Your task to perform on an android device: clear all cookies in the chrome app Image 0: 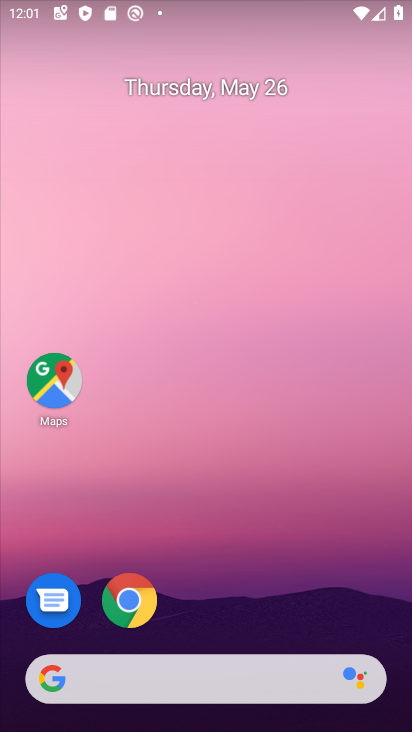
Step 0: drag from (252, 561) to (258, 108)
Your task to perform on an android device: clear all cookies in the chrome app Image 1: 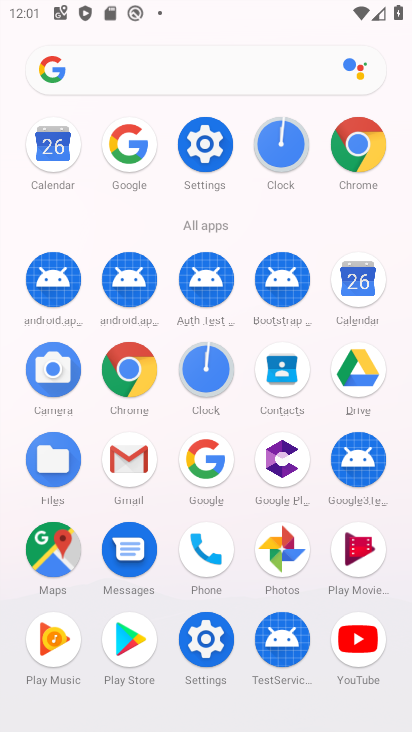
Step 1: click (128, 363)
Your task to perform on an android device: clear all cookies in the chrome app Image 2: 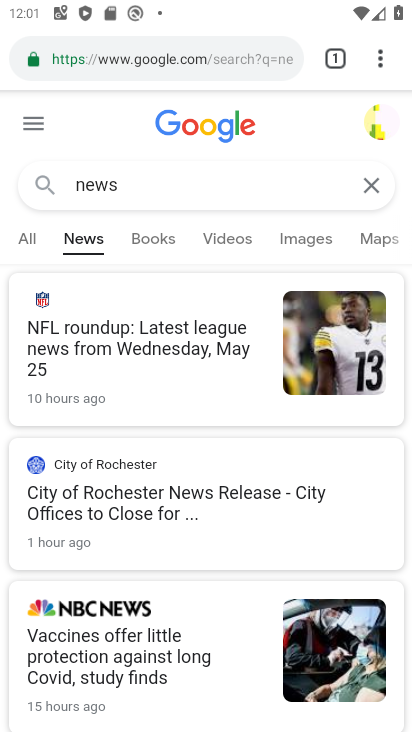
Step 2: click (383, 52)
Your task to perform on an android device: clear all cookies in the chrome app Image 3: 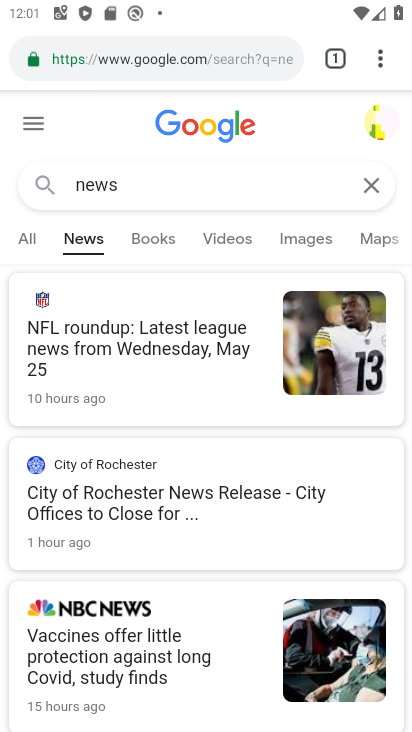
Step 3: drag from (382, 47) to (151, 322)
Your task to perform on an android device: clear all cookies in the chrome app Image 4: 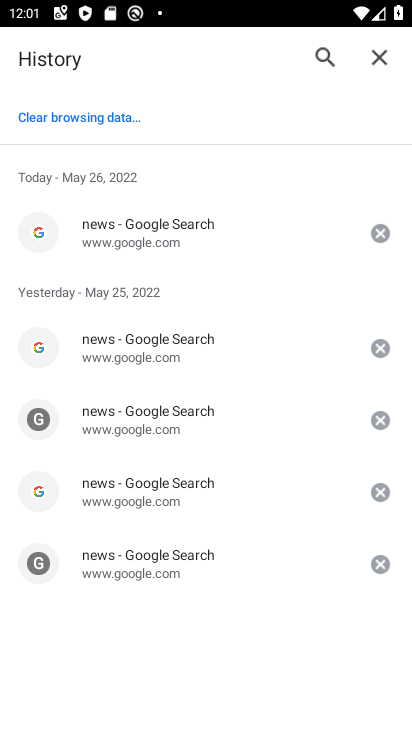
Step 4: click (116, 115)
Your task to perform on an android device: clear all cookies in the chrome app Image 5: 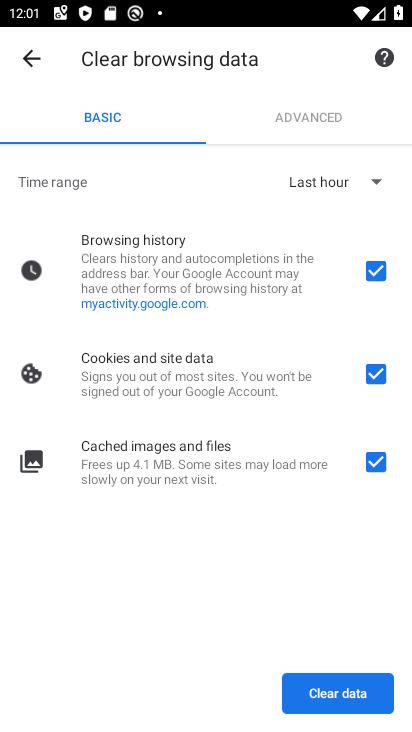
Step 5: click (328, 186)
Your task to perform on an android device: clear all cookies in the chrome app Image 6: 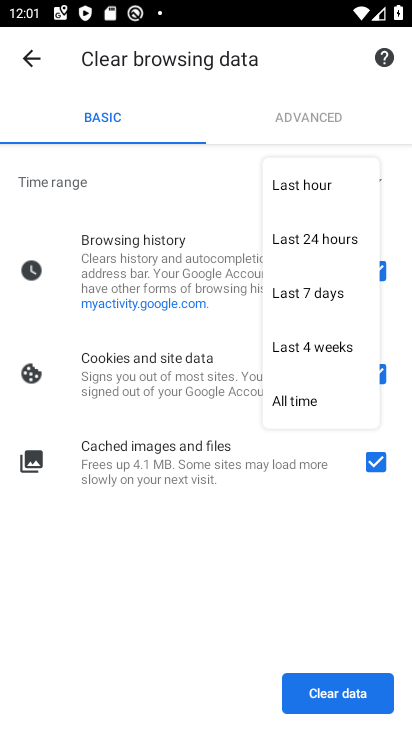
Step 6: click (305, 404)
Your task to perform on an android device: clear all cookies in the chrome app Image 7: 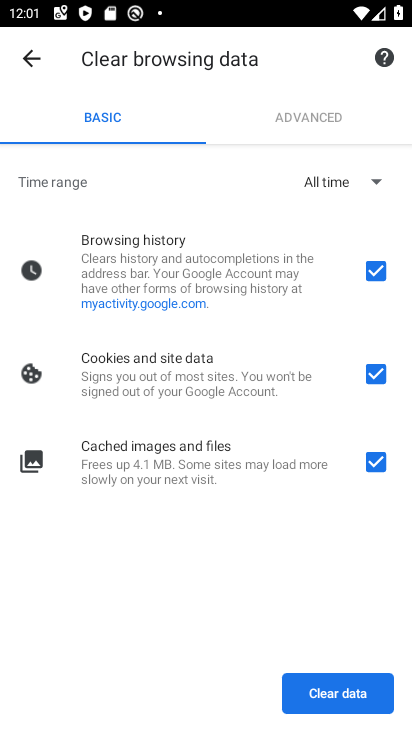
Step 7: click (332, 695)
Your task to perform on an android device: clear all cookies in the chrome app Image 8: 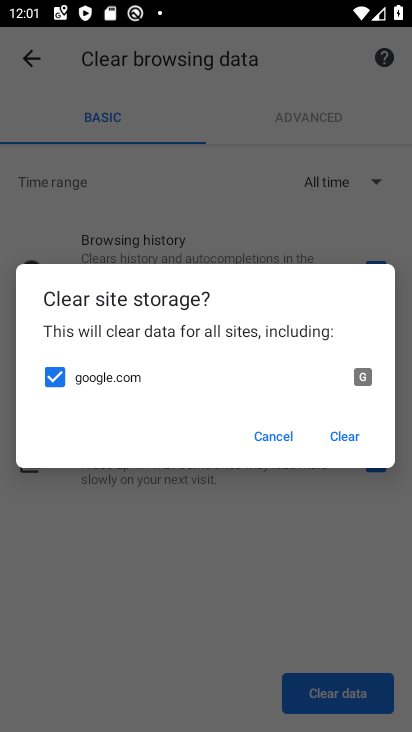
Step 8: click (348, 425)
Your task to perform on an android device: clear all cookies in the chrome app Image 9: 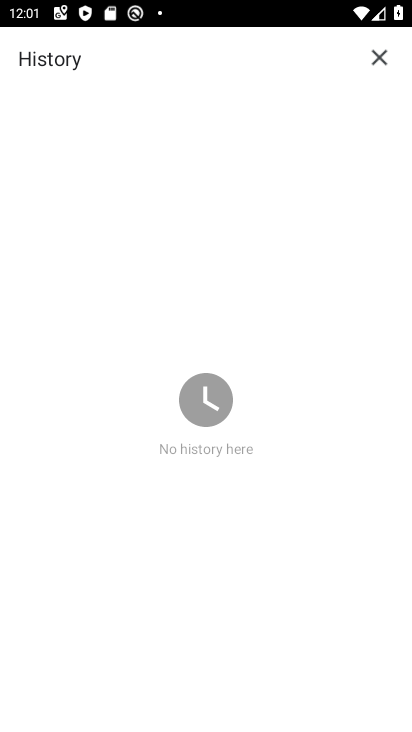
Step 9: task complete